Your task to perform on an android device: Open calendar and show me the third week of next month Image 0: 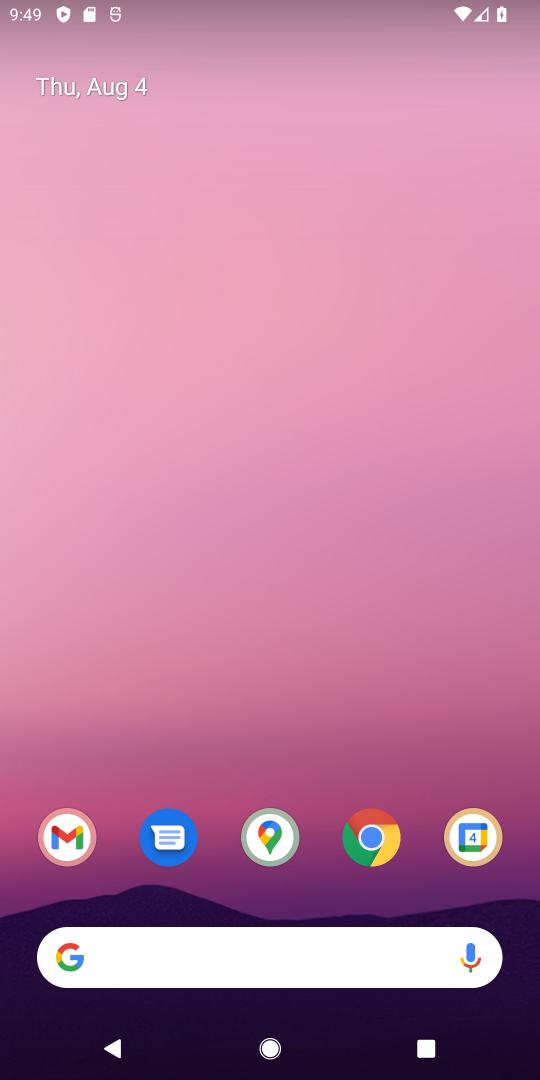
Step 0: drag from (335, 427) to (230, 8)
Your task to perform on an android device: Open calendar and show me the third week of next month Image 1: 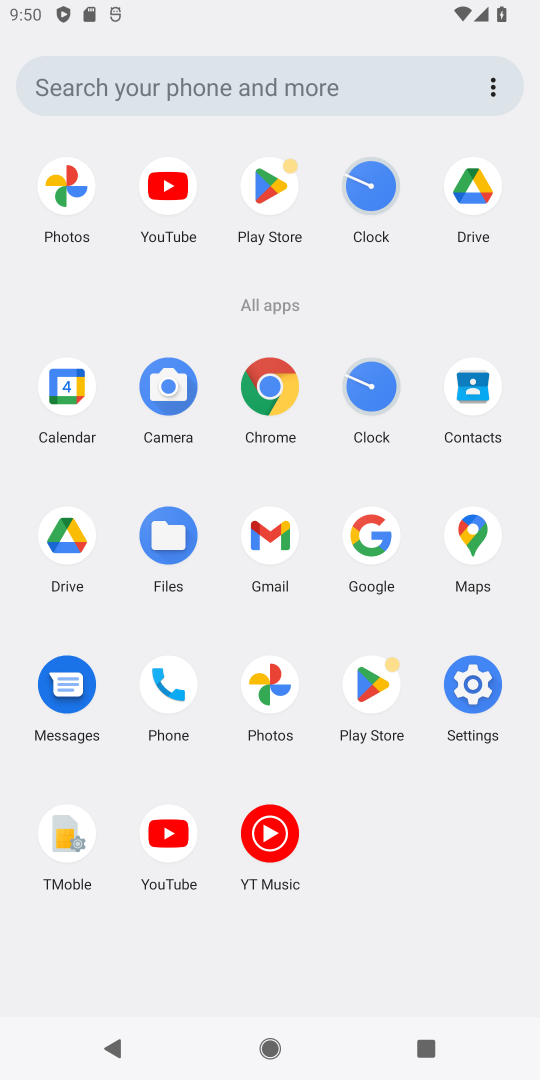
Step 1: click (75, 416)
Your task to perform on an android device: Open calendar and show me the third week of next month Image 2: 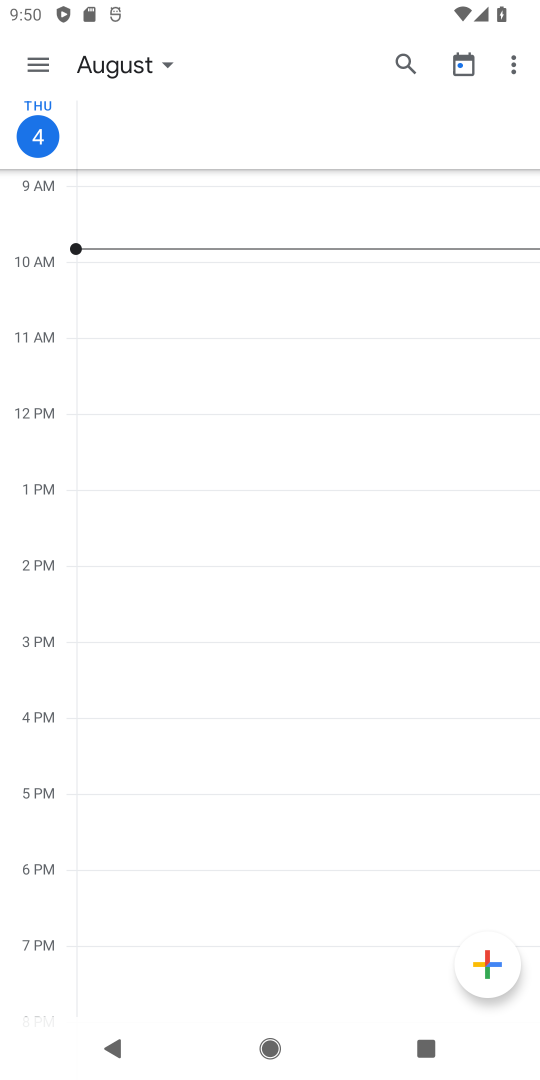
Step 2: click (128, 70)
Your task to perform on an android device: Open calendar and show me the third week of next month Image 3: 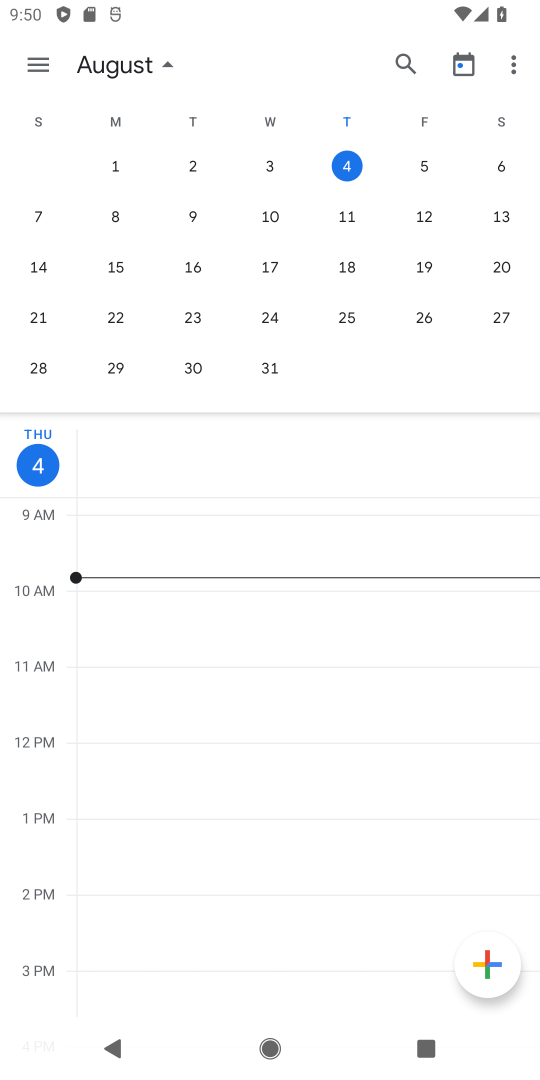
Step 3: drag from (474, 267) to (216, 255)
Your task to perform on an android device: Open calendar and show me the third week of next month Image 4: 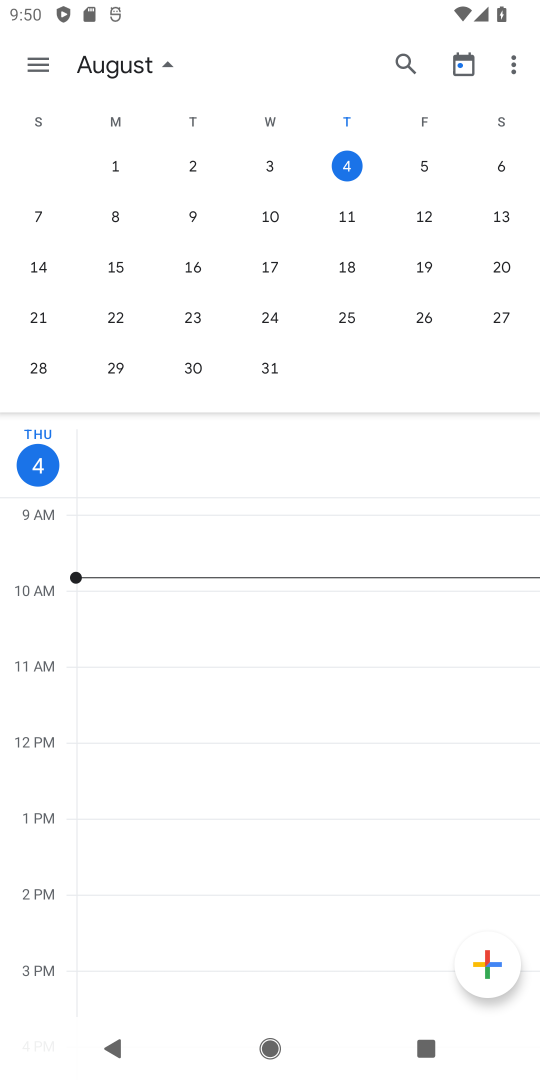
Step 4: drag from (445, 202) to (39, 213)
Your task to perform on an android device: Open calendar and show me the third week of next month Image 5: 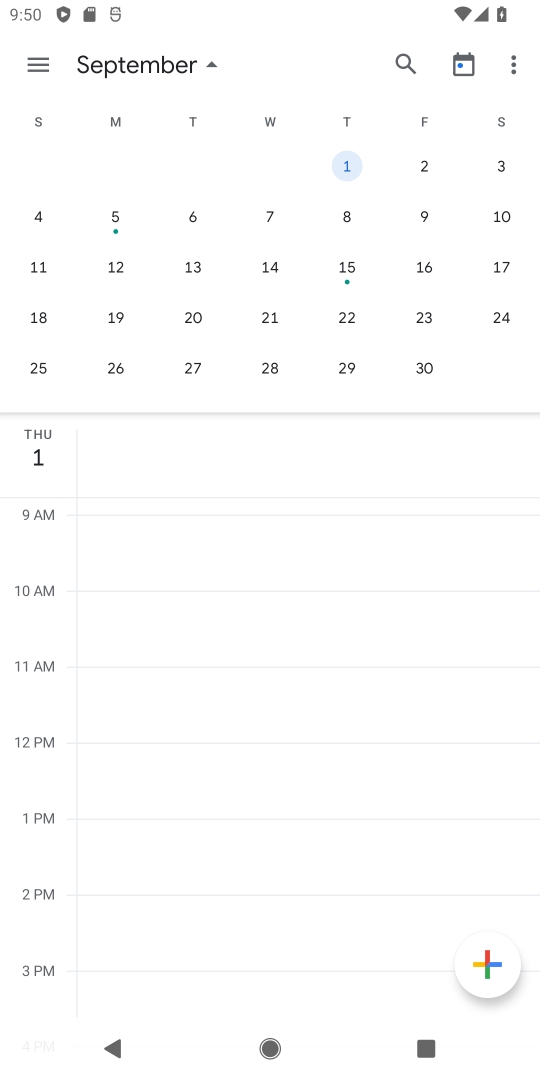
Step 5: click (30, 322)
Your task to perform on an android device: Open calendar and show me the third week of next month Image 6: 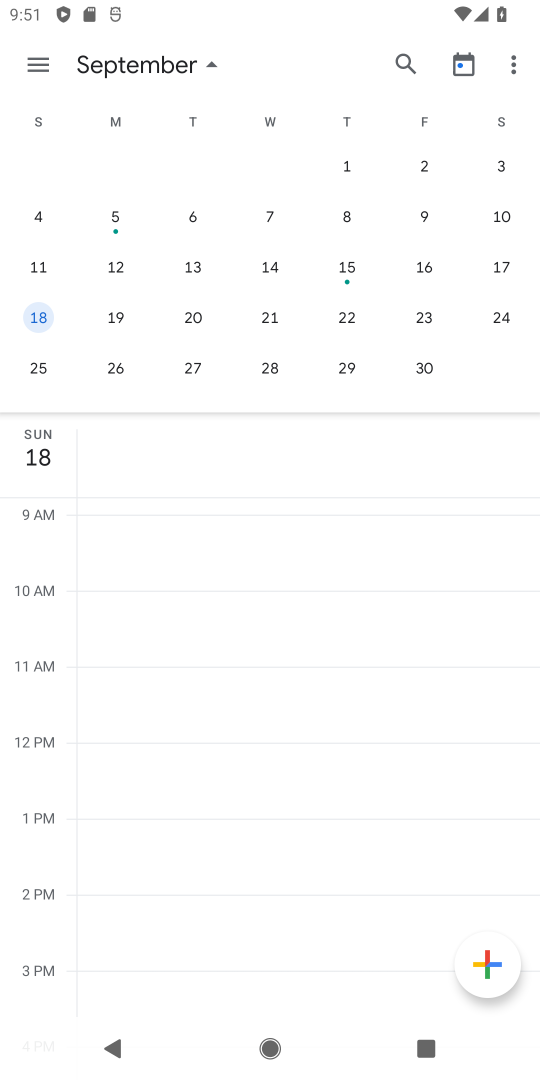
Step 6: task complete